Your task to perform on an android device: change the clock display to analog Image 0: 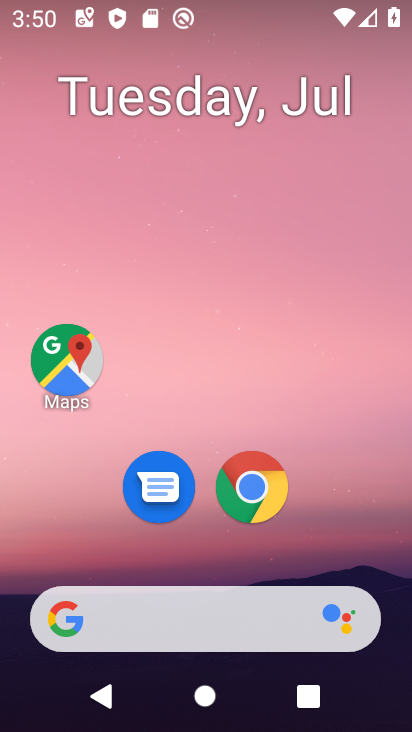
Step 0: drag from (170, 574) to (222, 24)
Your task to perform on an android device: change the clock display to analog Image 1: 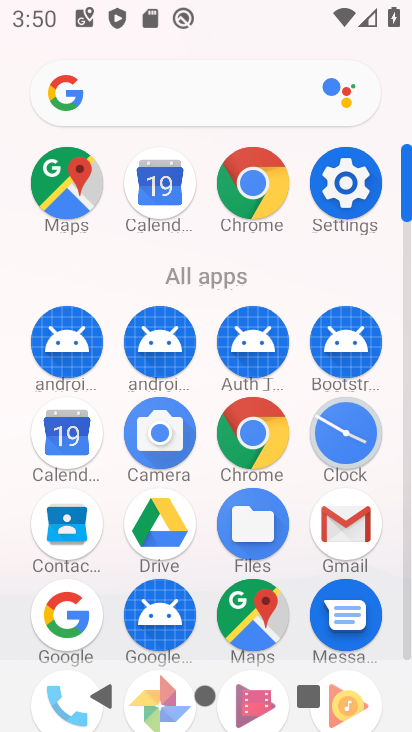
Step 1: click (343, 449)
Your task to perform on an android device: change the clock display to analog Image 2: 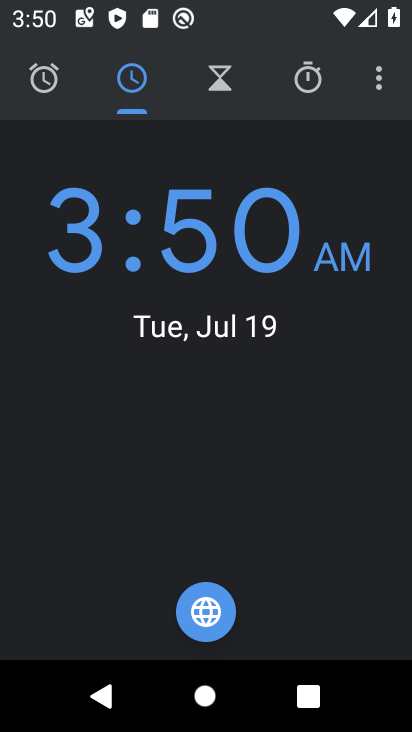
Step 2: click (377, 75)
Your task to perform on an android device: change the clock display to analog Image 3: 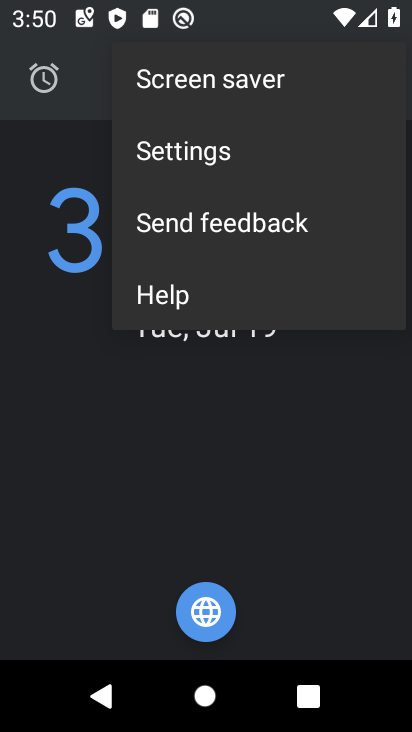
Step 3: click (251, 153)
Your task to perform on an android device: change the clock display to analog Image 4: 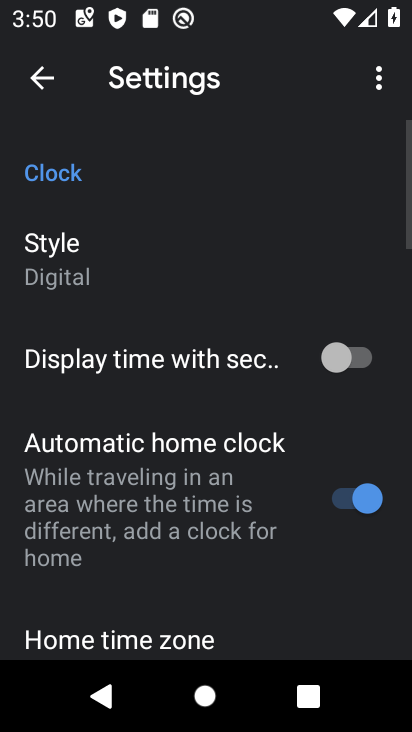
Step 4: drag from (157, 546) to (224, 0)
Your task to perform on an android device: change the clock display to analog Image 5: 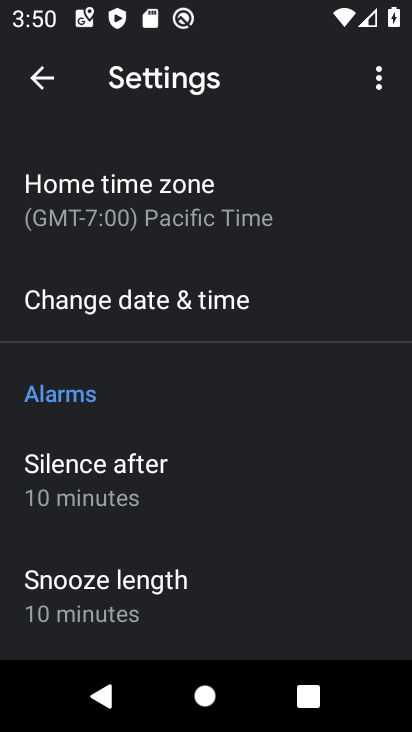
Step 5: drag from (142, 604) to (235, 36)
Your task to perform on an android device: change the clock display to analog Image 6: 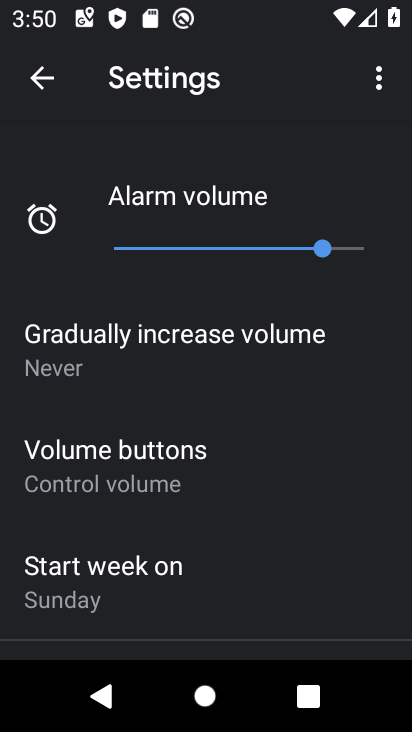
Step 6: drag from (206, 157) to (165, 692)
Your task to perform on an android device: change the clock display to analog Image 7: 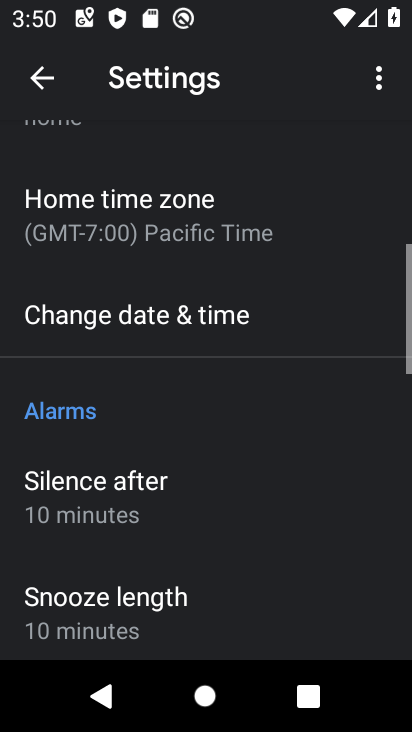
Step 7: drag from (184, 251) to (161, 448)
Your task to perform on an android device: change the clock display to analog Image 8: 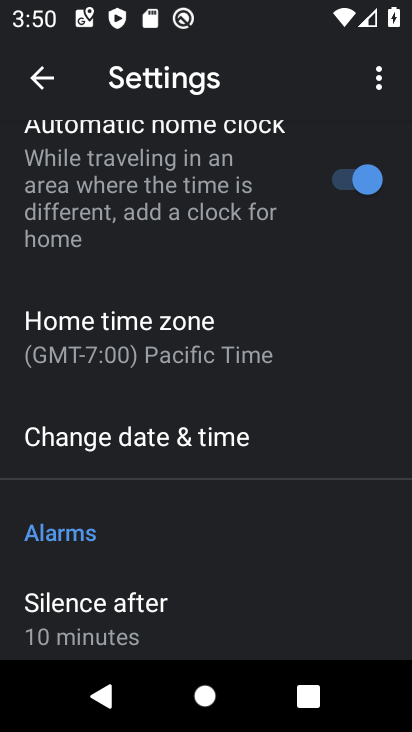
Step 8: drag from (181, 169) to (133, 649)
Your task to perform on an android device: change the clock display to analog Image 9: 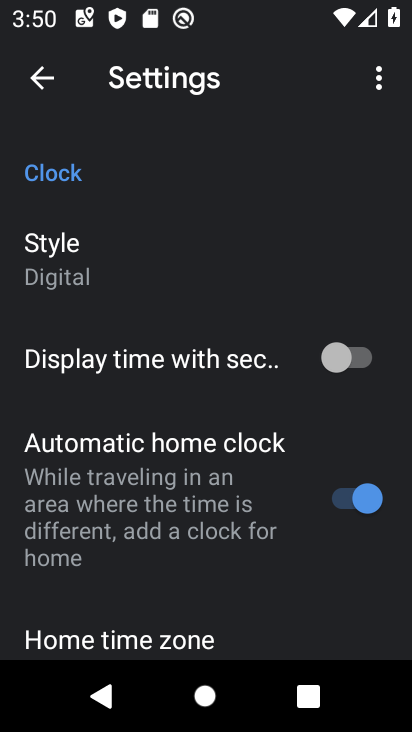
Step 9: click (97, 255)
Your task to perform on an android device: change the clock display to analog Image 10: 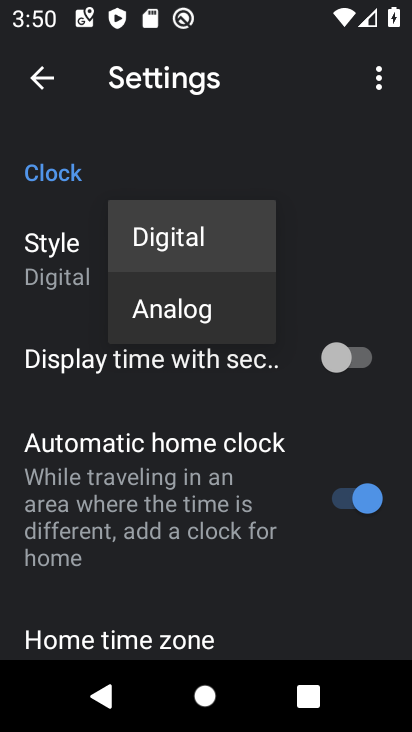
Step 10: click (152, 316)
Your task to perform on an android device: change the clock display to analog Image 11: 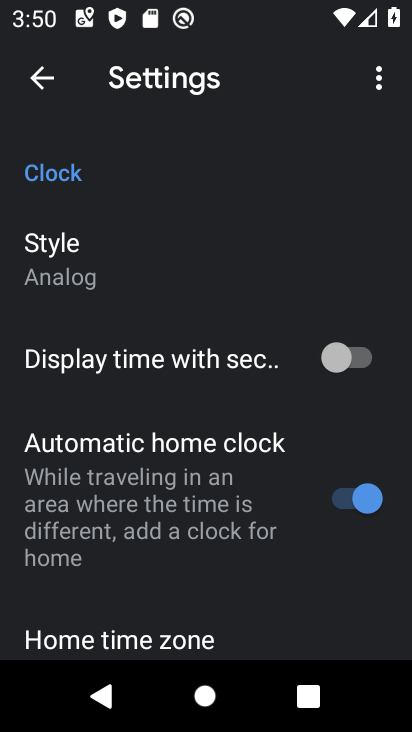
Step 11: task complete